Your task to perform on an android device: Open network settings Image 0: 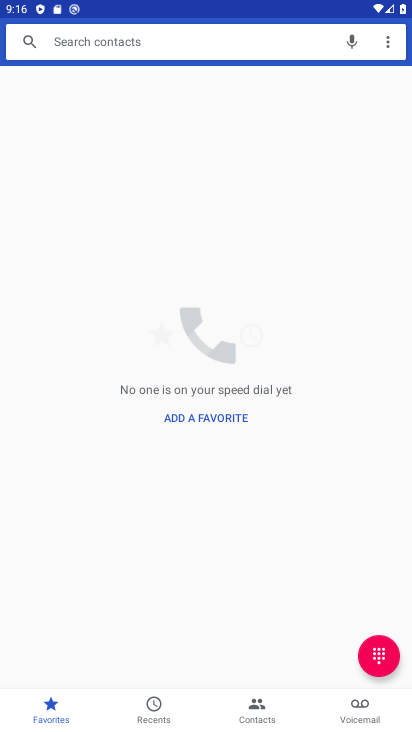
Step 0: press home button
Your task to perform on an android device: Open network settings Image 1: 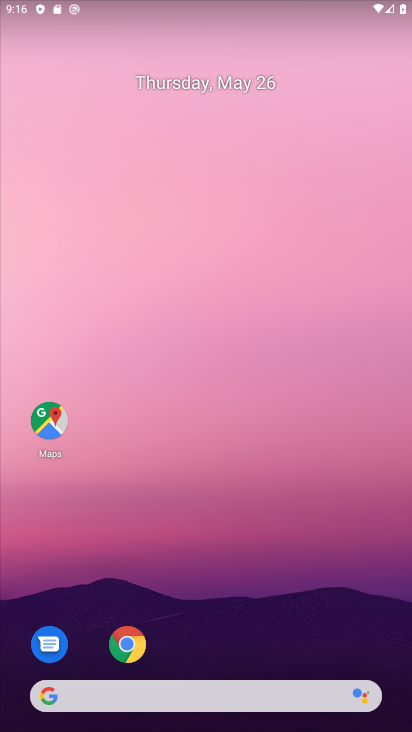
Step 1: drag from (238, 648) to (265, 247)
Your task to perform on an android device: Open network settings Image 2: 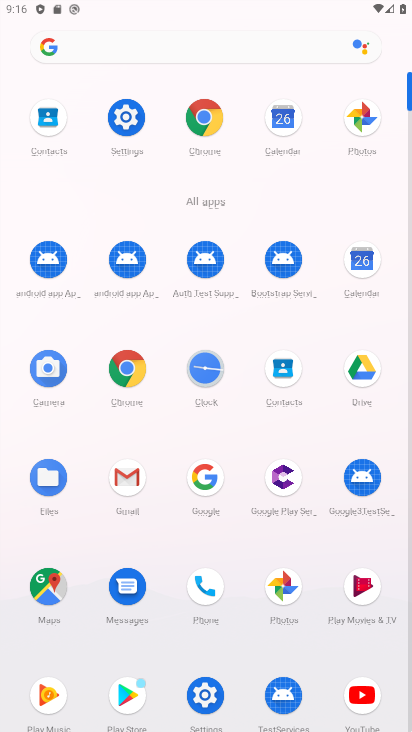
Step 2: click (119, 124)
Your task to perform on an android device: Open network settings Image 3: 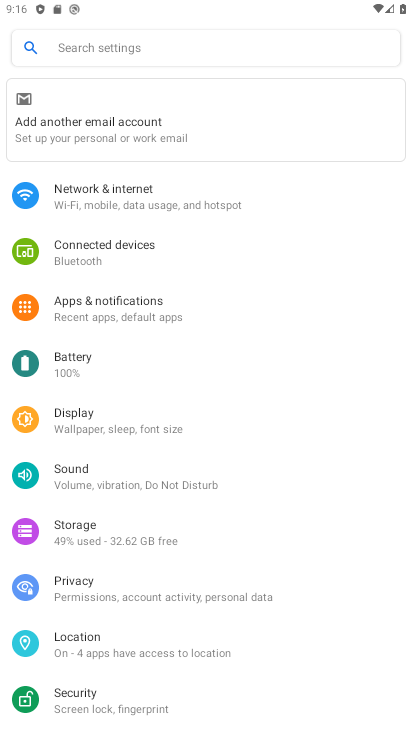
Step 3: click (163, 187)
Your task to perform on an android device: Open network settings Image 4: 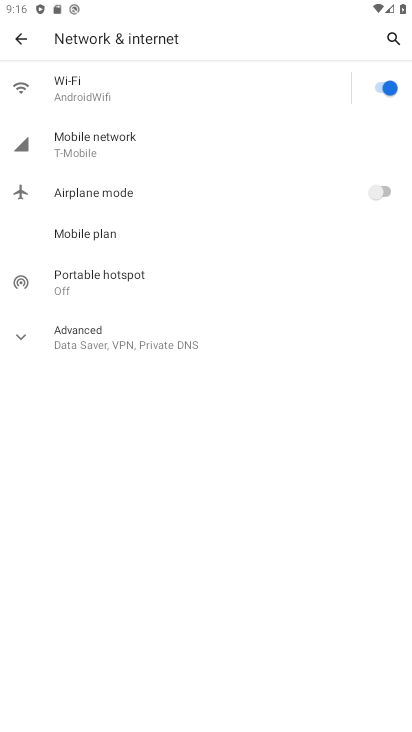
Step 4: click (206, 193)
Your task to perform on an android device: Open network settings Image 5: 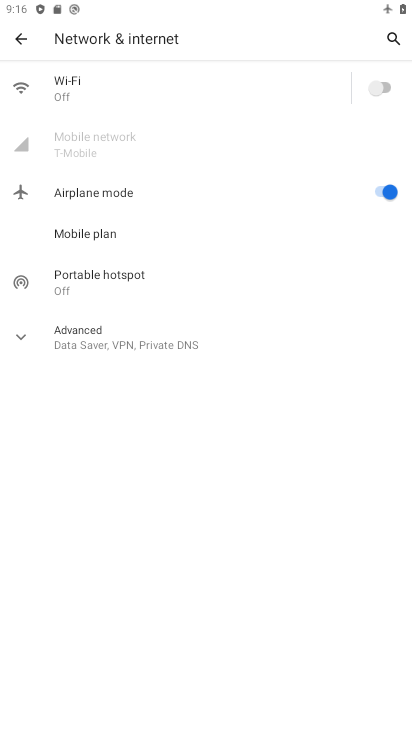
Step 5: task complete